Your task to perform on an android device: turn pop-ups on in chrome Image 0: 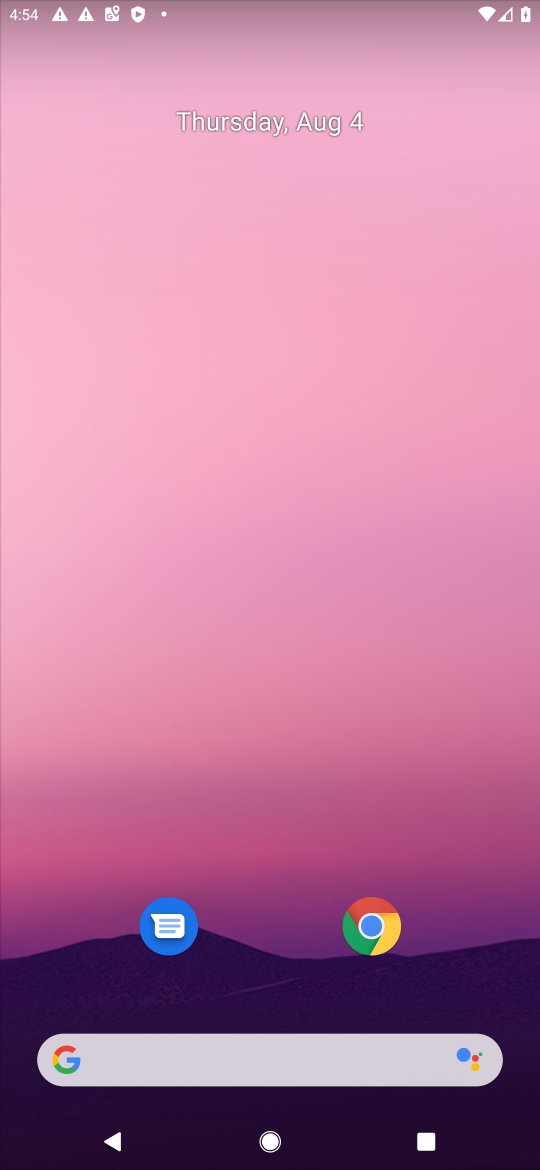
Step 0: press home button
Your task to perform on an android device: turn pop-ups on in chrome Image 1: 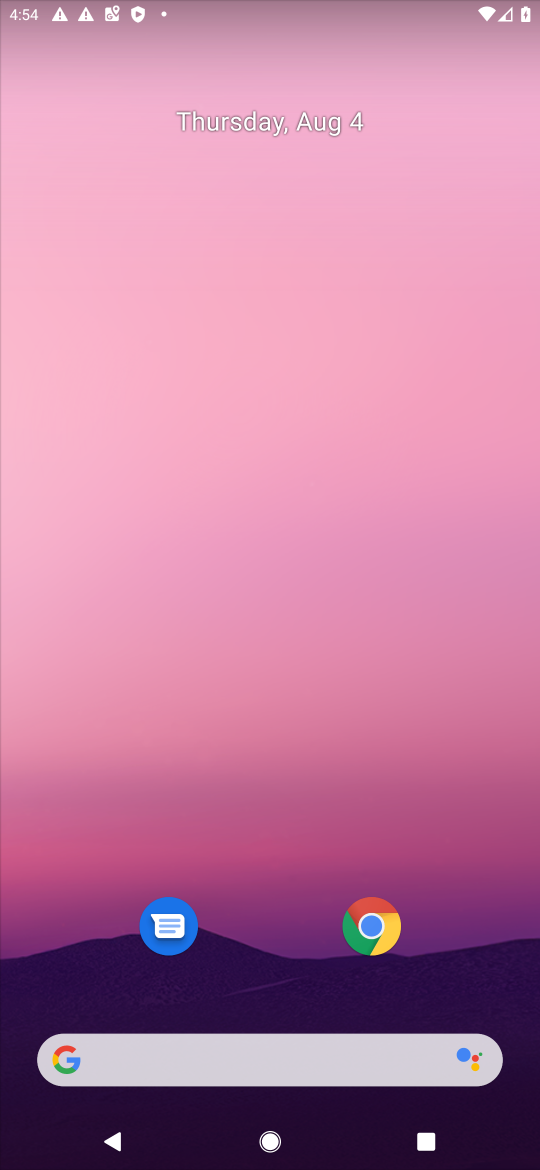
Step 1: drag from (331, 1018) to (516, 417)
Your task to perform on an android device: turn pop-ups on in chrome Image 2: 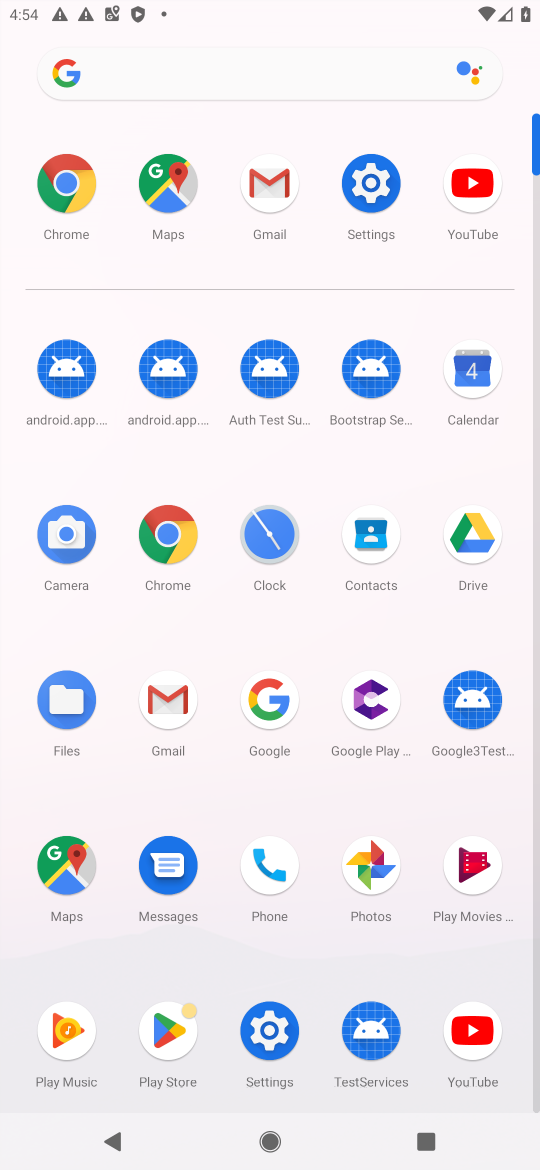
Step 2: click (72, 194)
Your task to perform on an android device: turn pop-ups on in chrome Image 3: 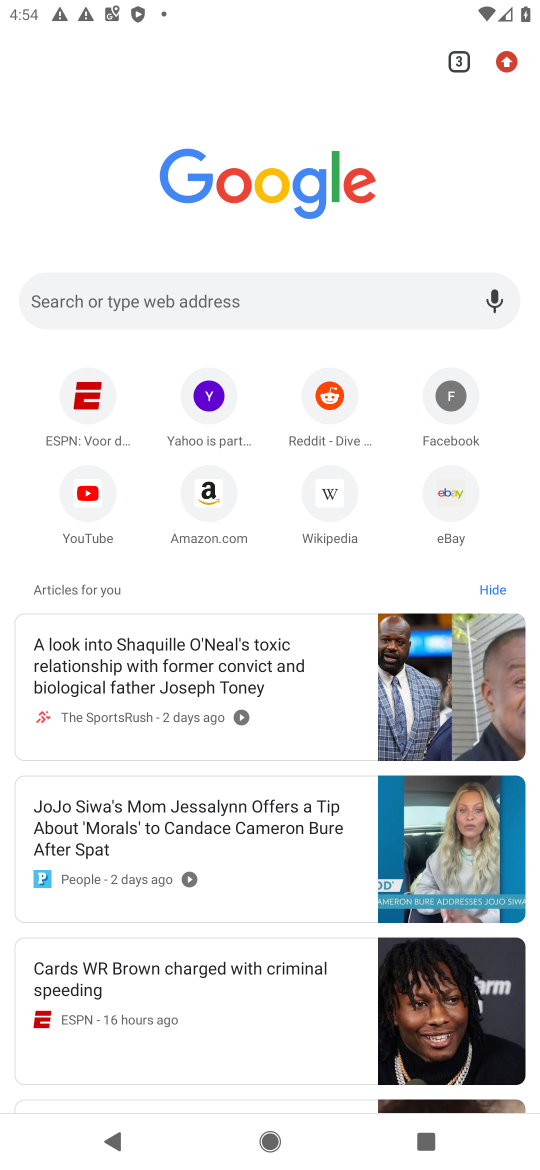
Step 3: drag from (510, 58) to (262, 582)
Your task to perform on an android device: turn pop-ups on in chrome Image 4: 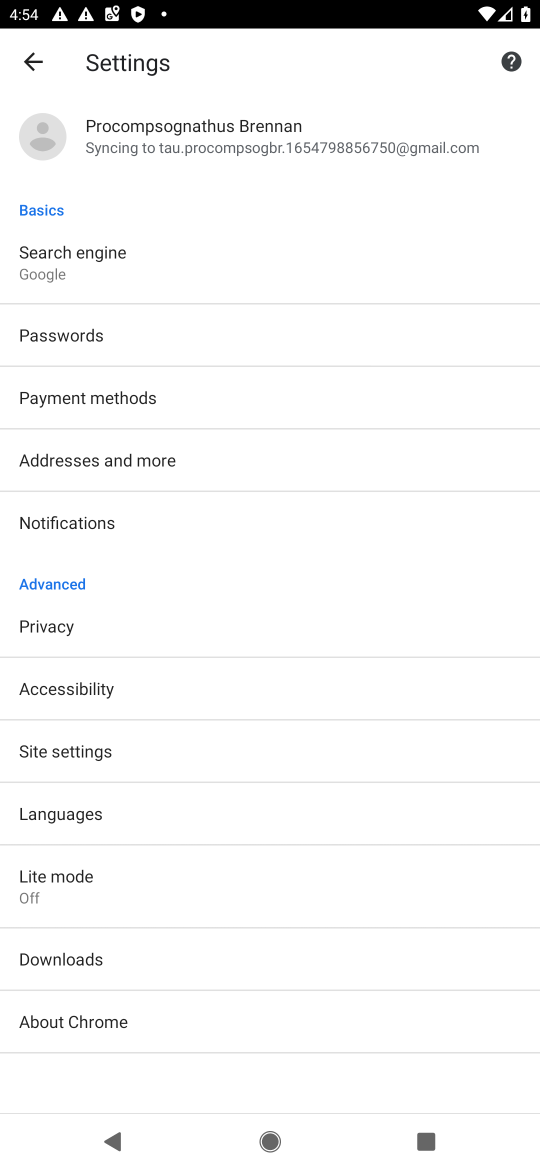
Step 4: click (64, 758)
Your task to perform on an android device: turn pop-ups on in chrome Image 5: 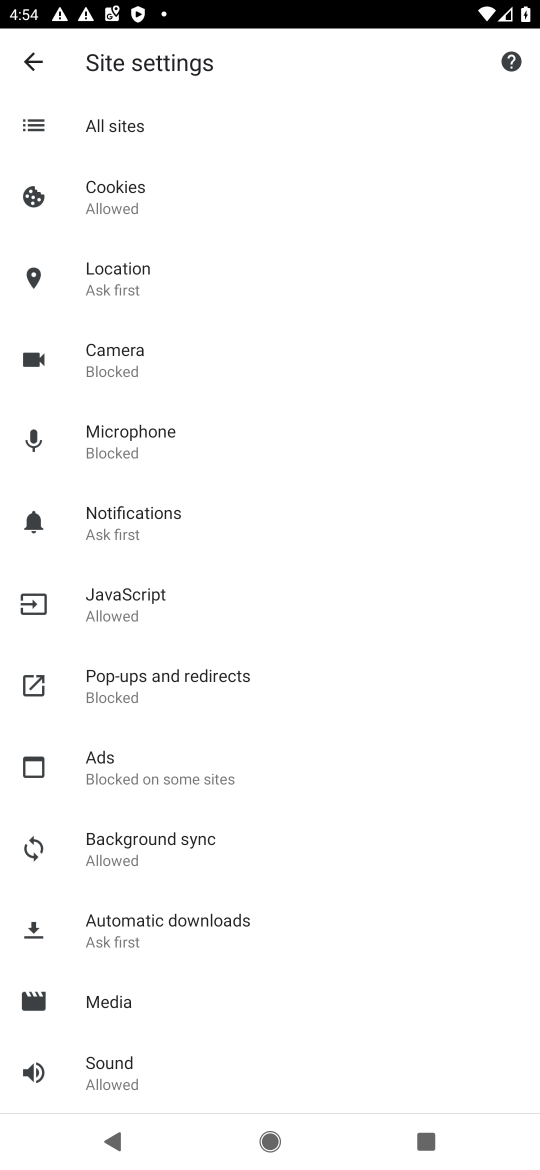
Step 5: click (128, 674)
Your task to perform on an android device: turn pop-ups on in chrome Image 6: 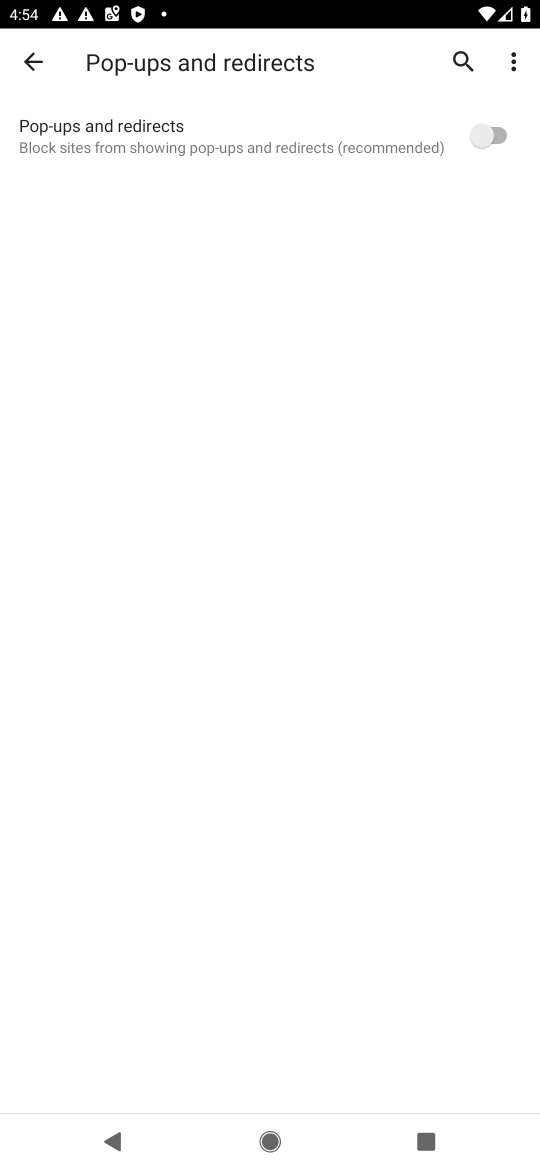
Step 6: click (484, 134)
Your task to perform on an android device: turn pop-ups on in chrome Image 7: 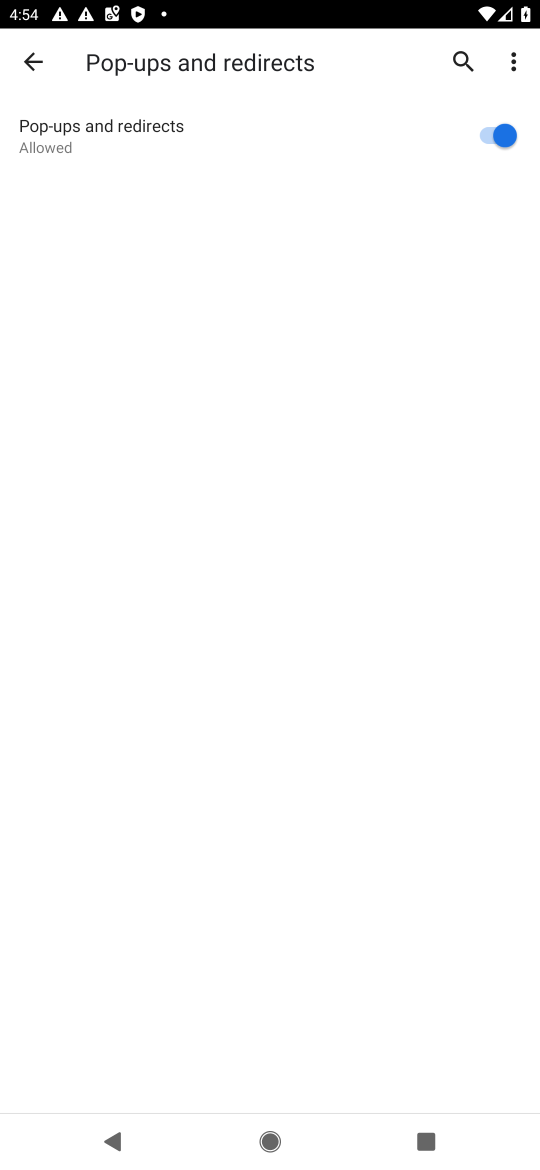
Step 7: task complete